Your task to perform on an android device: choose inbox layout in the gmail app Image 0: 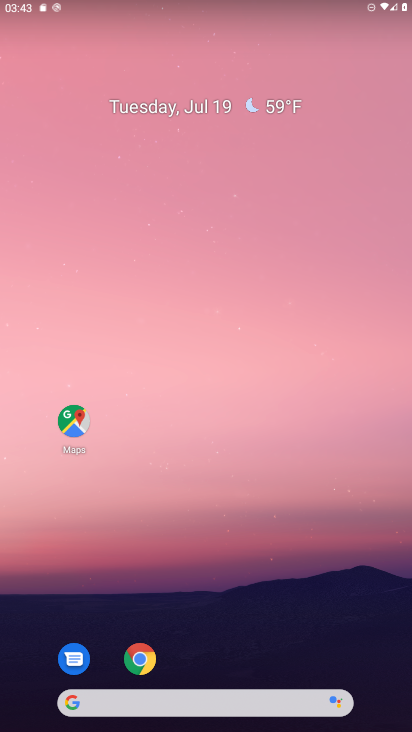
Step 0: drag from (183, 700) to (241, 154)
Your task to perform on an android device: choose inbox layout in the gmail app Image 1: 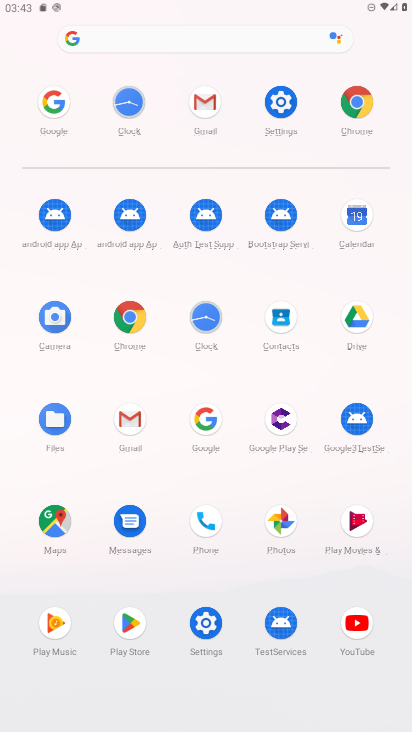
Step 1: click (204, 98)
Your task to perform on an android device: choose inbox layout in the gmail app Image 2: 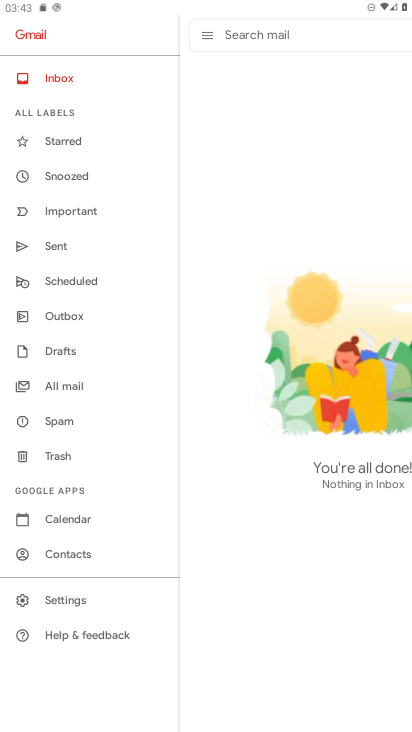
Step 2: click (58, 592)
Your task to perform on an android device: choose inbox layout in the gmail app Image 3: 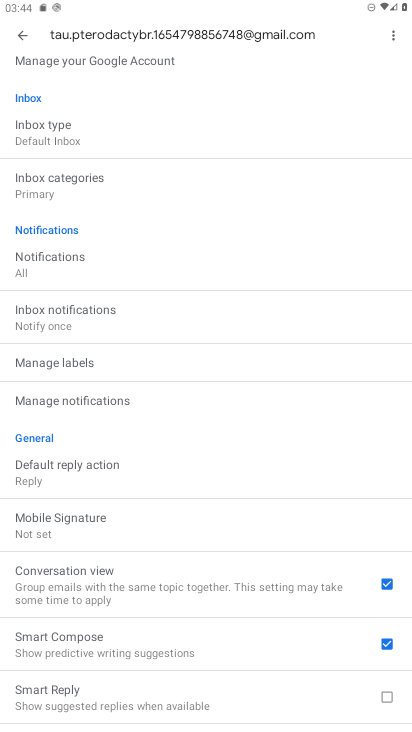
Step 3: click (64, 145)
Your task to perform on an android device: choose inbox layout in the gmail app Image 4: 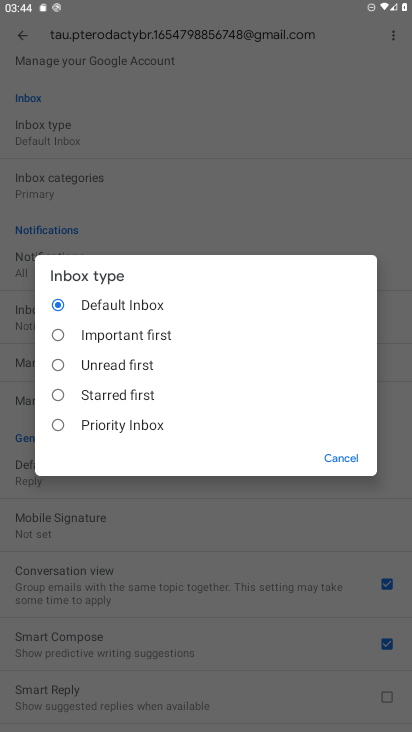
Step 4: click (65, 338)
Your task to perform on an android device: choose inbox layout in the gmail app Image 5: 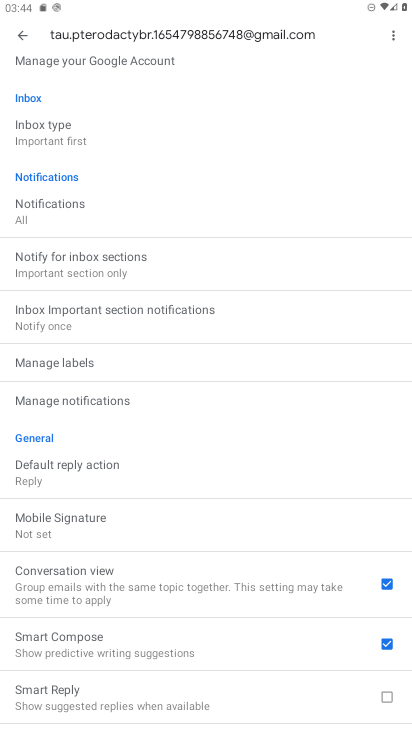
Step 5: task complete